Your task to perform on an android device: open a new tab in the chrome app Image 0: 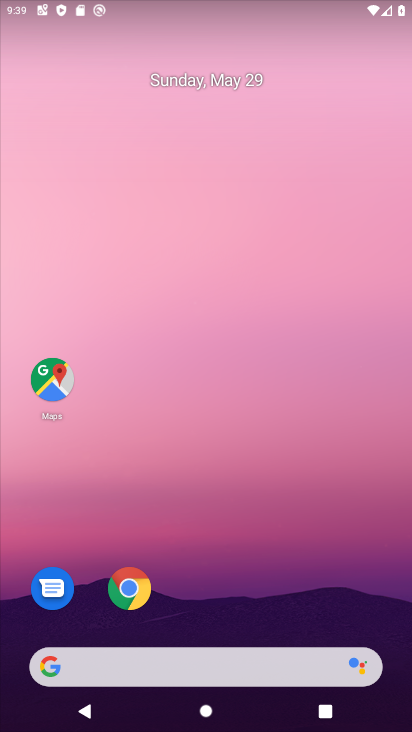
Step 0: press home button
Your task to perform on an android device: open a new tab in the chrome app Image 1: 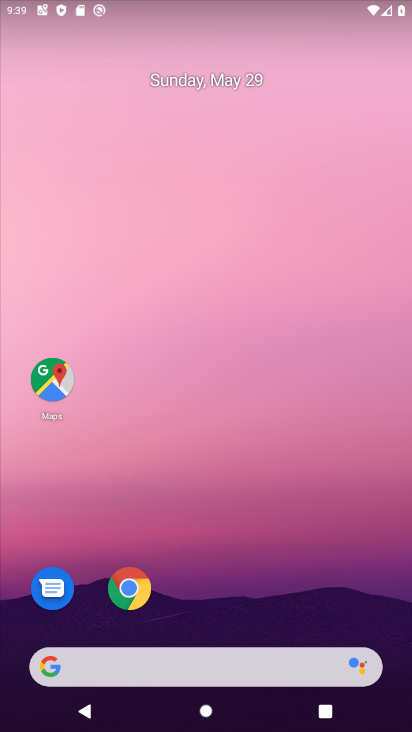
Step 1: click (128, 593)
Your task to perform on an android device: open a new tab in the chrome app Image 2: 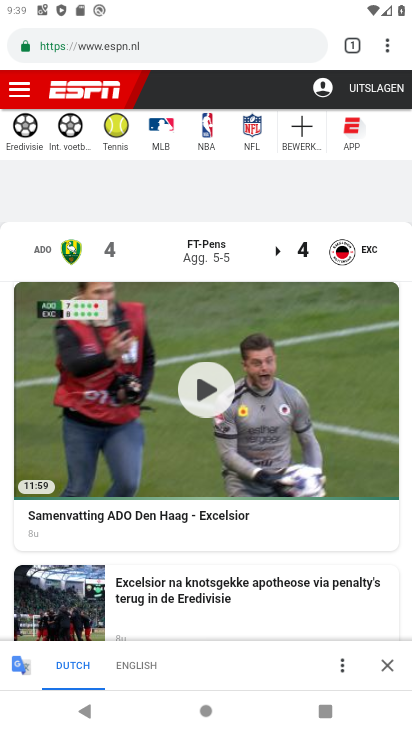
Step 2: click (357, 45)
Your task to perform on an android device: open a new tab in the chrome app Image 3: 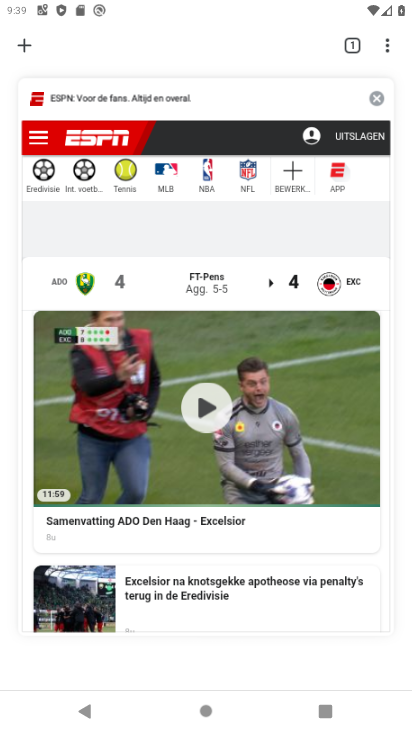
Step 3: click (24, 43)
Your task to perform on an android device: open a new tab in the chrome app Image 4: 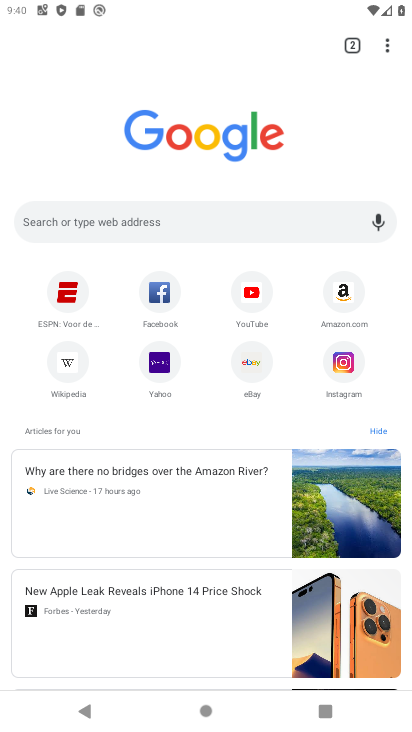
Step 4: task complete